Your task to perform on an android device: uninstall "Google Duo" Image 0: 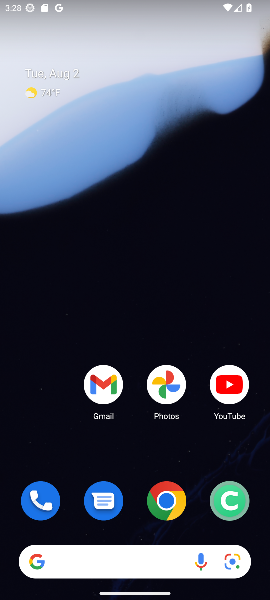
Step 0: drag from (128, 458) to (116, 26)
Your task to perform on an android device: uninstall "Google Duo" Image 1: 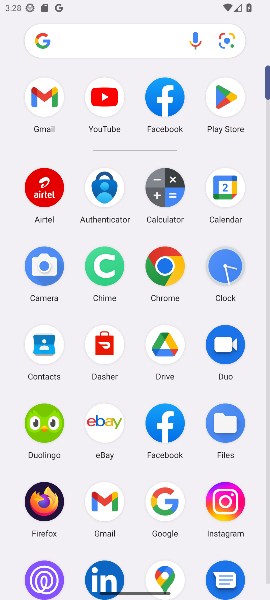
Step 1: click (231, 91)
Your task to perform on an android device: uninstall "Google Duo" Image 2: 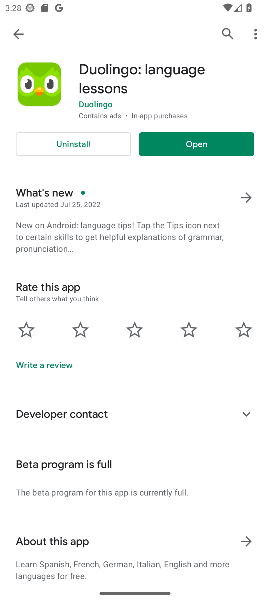
Step 2: click (222, 39)
Your task to perform on an android device: uninstall "Google Duo" Image 3: 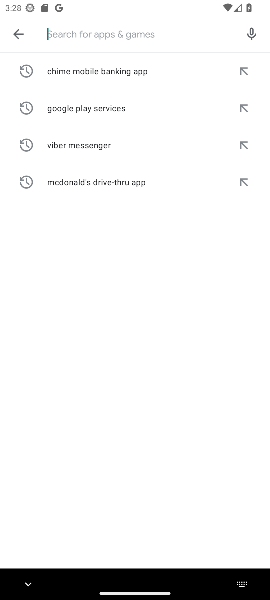
Step 3: type "Google Duo"
Your task to perform on an android device: uninstall "Google Duo" Image 4: 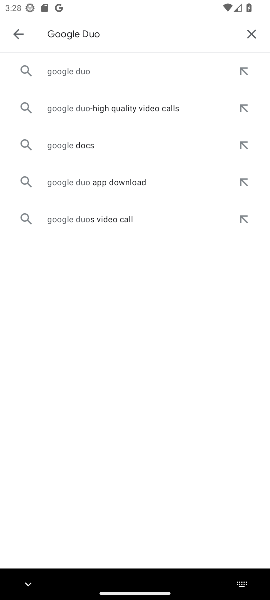
Step 4: click (58, 81)
Your task to perform on an android device: uninstall "Google Duo" Image 5: 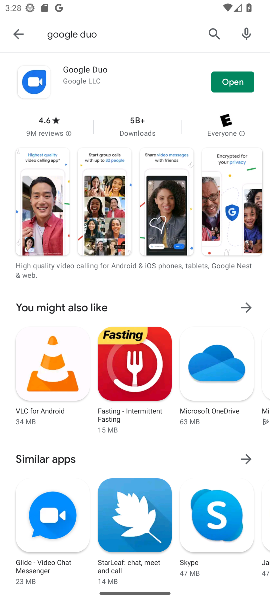
Step 5: click (71, 70)
Your task to perform on an android device: uninstall "Google Duo" Image 6: 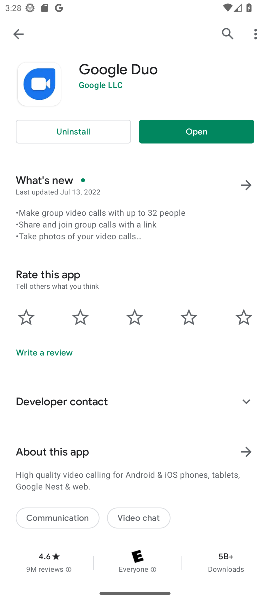
Step 6: click (73, 128)
Your task to perform on an android device: uninstall "Google Duo" Image 7: 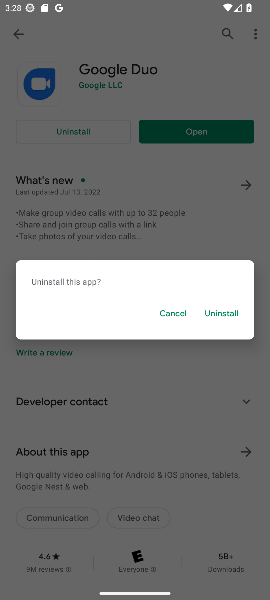
Step 7: click (225, 316)
Your task to perform on an android device: uninstall "Google Duo" Image 8: 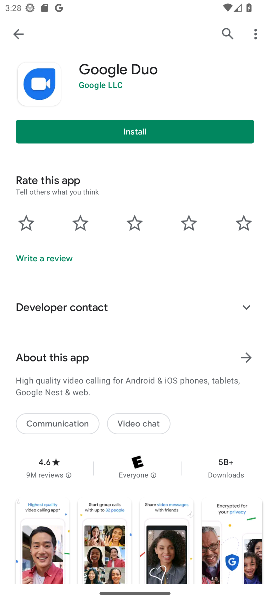
Step 8: task complete